Your task to perform on an android device: turn off notifications in google photos Image 0: 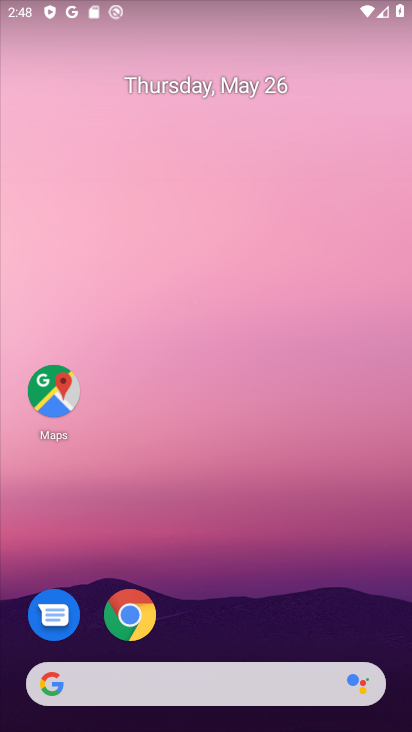
Step 0: drag from (220, 613) to (257, 179)
Your task to perform on an android device: turn off notifications in google photos Image 1: 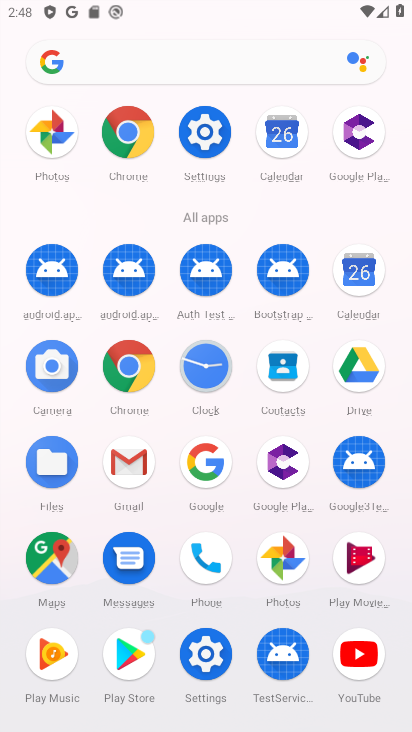
Step 1: click (289, 559)
Your task to perform on an android device: turn off notifications in google photos Image 2: 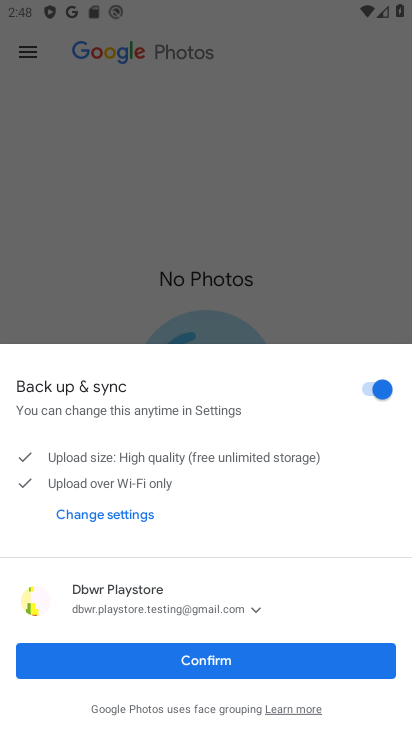
Step 2: click (212, 661)
Your task to perform on an android device: turn off notifications in google photos Image 3: 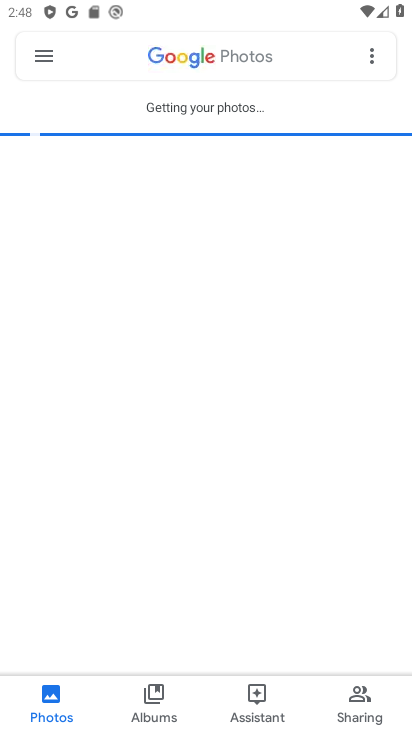
Step 3: click (50, 66)
Your task to perform on an android device: turn off notifications in google photos Image 4: 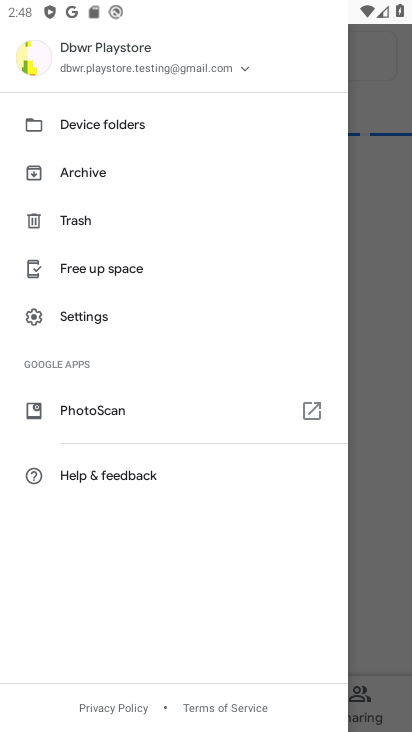
Step 4: click (111, 315)
Your task to perform on an android device: turn off notifications in google photos Image 5: 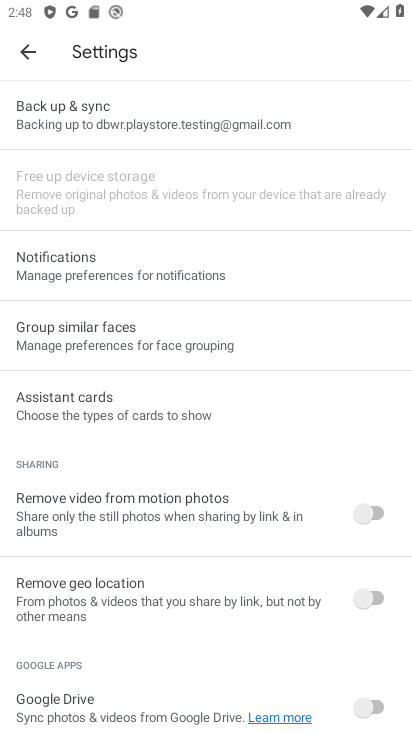
Step 5: click (83, 265)
Your task to perform on an android device: turn off notifications in google photos Image 6: 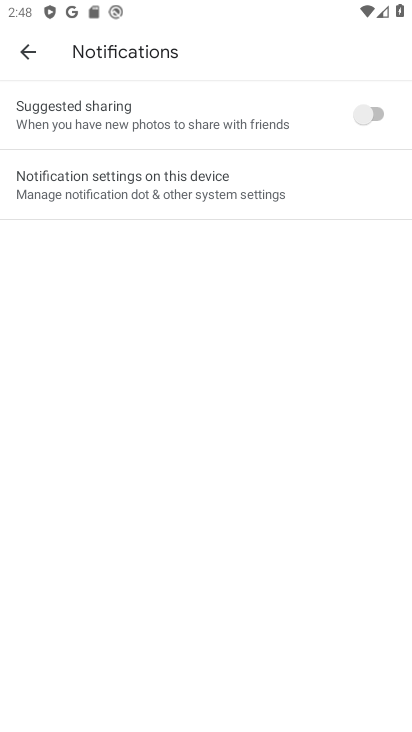
Step 6: click (247, 170)
Your task to perform on an android device: turn off notifications in google photos Image 7: 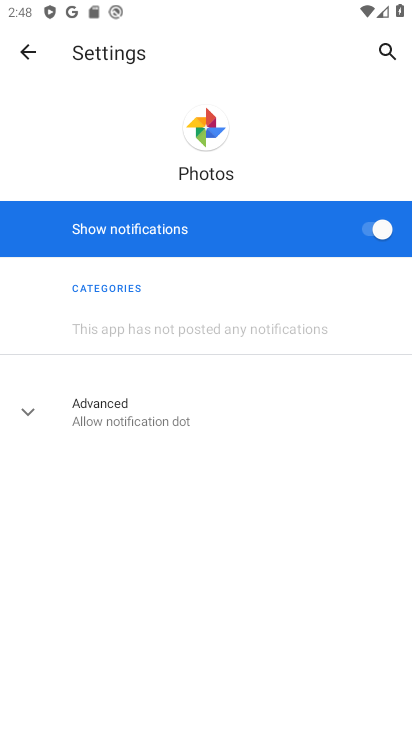
Step 7: click (374, 241)
Your task to perform on an android device: turn off notifications in google photos Image 8: 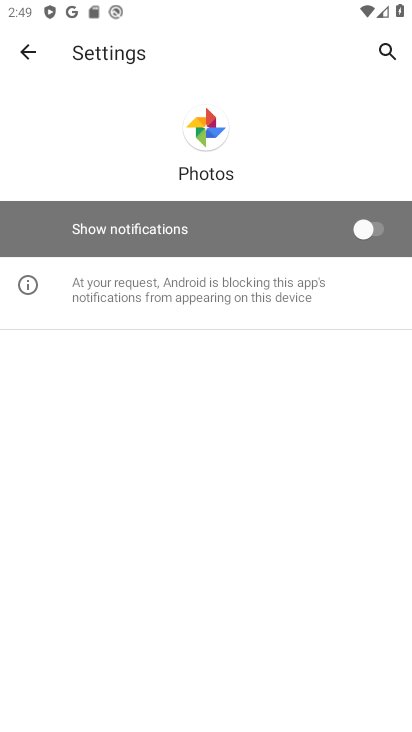
Step 8: task complete